Your task to perform on an android device: When is my next appointment? Image 0: 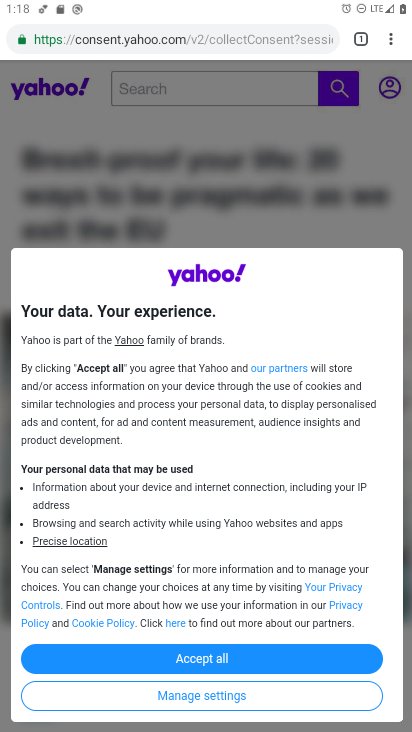
Step 0: press home button
Your task to perform on an android device: When is my next appointment? Image 1: 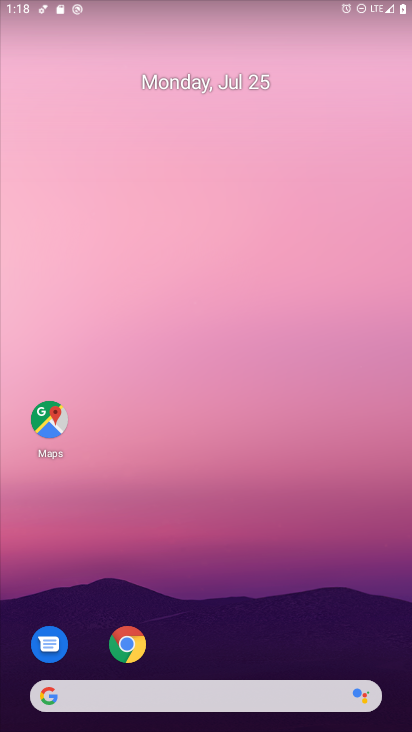
Step 1: drag from (266, 660) to (354, 11)
Your task to perform on an android device: When is my next appointment? Image 2: 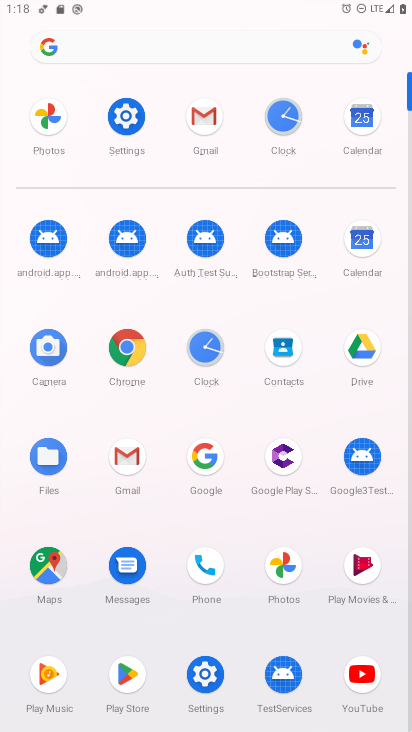
Step 2: click (361, 250)
Your task to perform on an android device: When is my next appointment? Image 3: 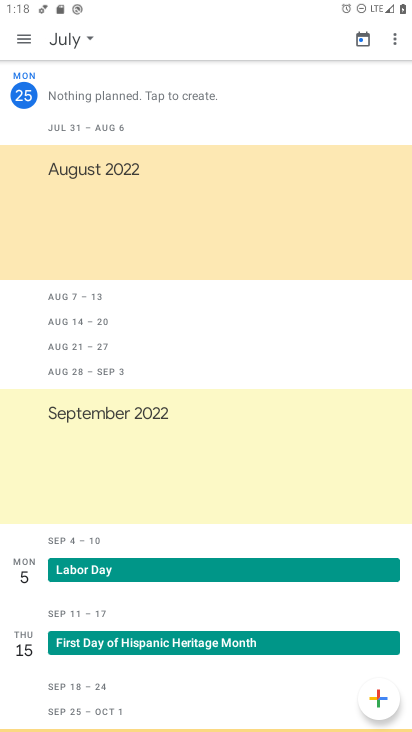
Step 3: click (73, 46)
Your task to perform on an android device: When is my next appointment? Image 4: 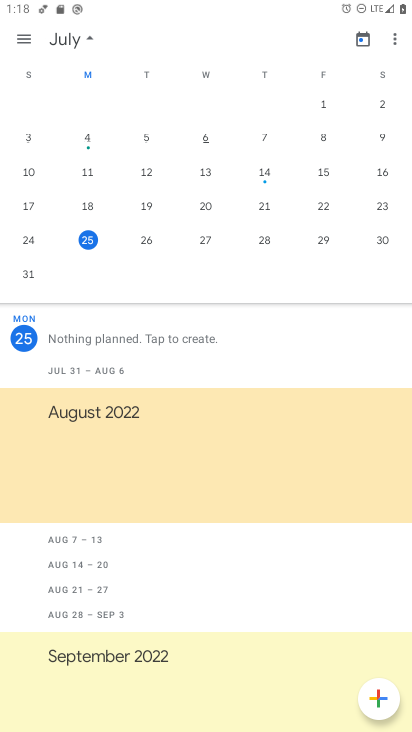
Step 4: click (85, 233)
Your task to perform on an android device: When is my next appointment? Image 5: 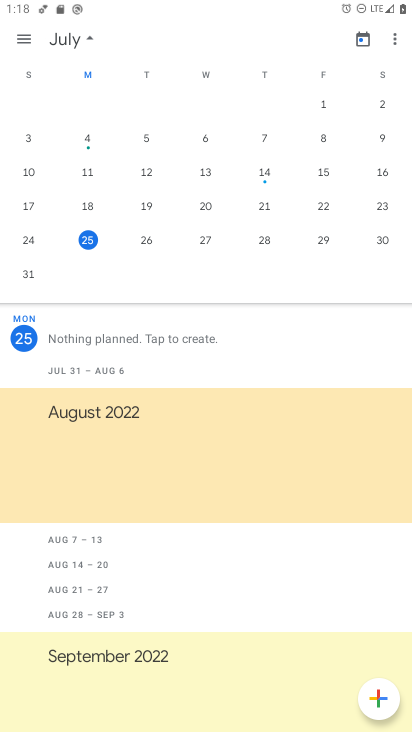
Step 5: task complete